Your task to perform on an android device: Search for Italian restaurants on Maps Image 0: 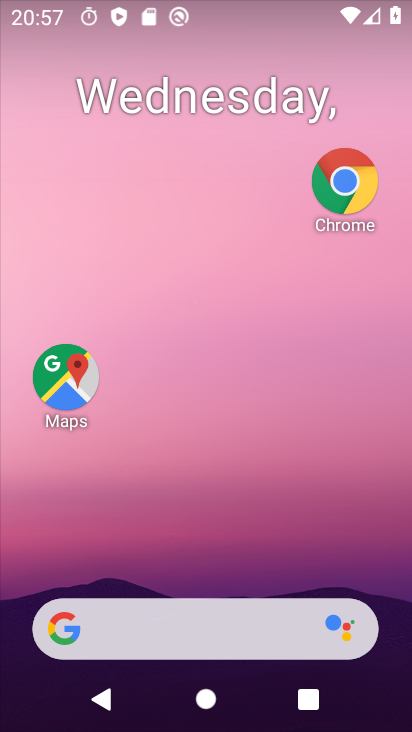
Step 0: drag from (246, 671) to (201, 255)
Your task to perform on an android device: Search for Italian restaurants on Maps Image 1: 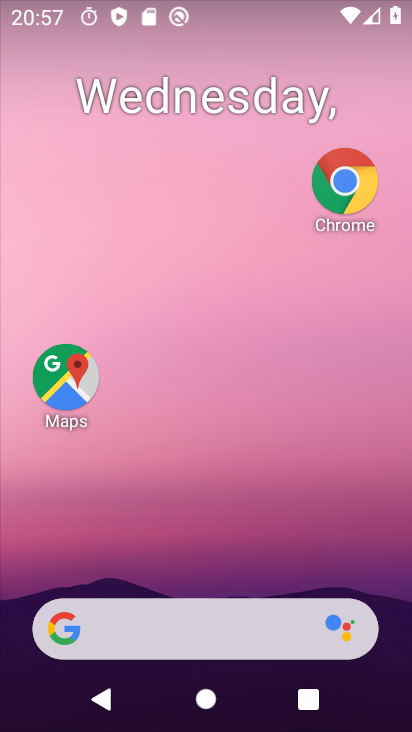
Step 1: drag from (177, 666) to (359, 134)
Your task to perform on an android device: Search for Italian restaurants on Maps Image 2: 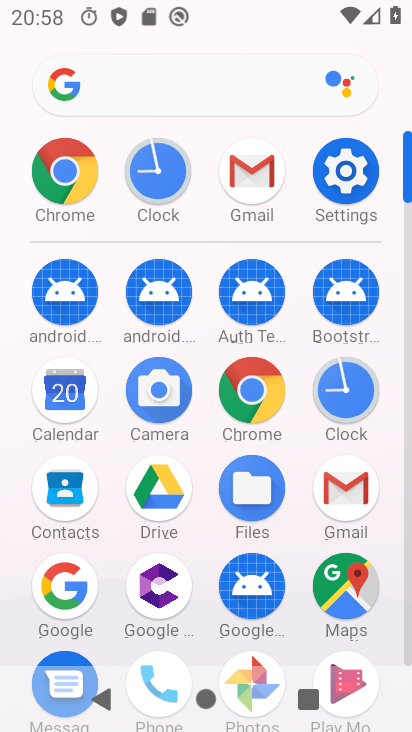
Step 2: click (346, 589)
Your task to perform on an android device: Search for Italian restaurants on Maps Image 3: 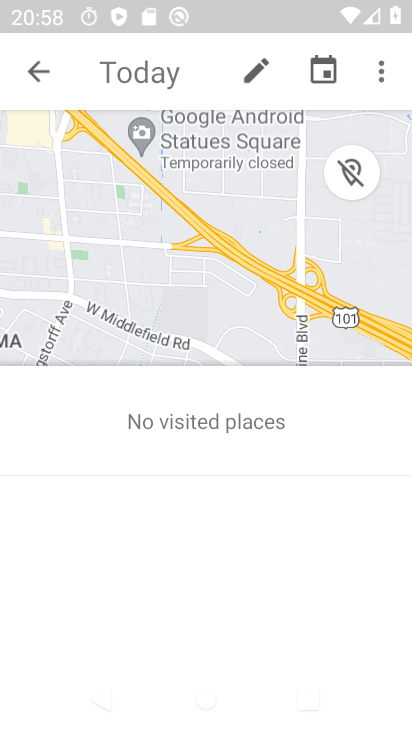
Step 3: click (35, 74)
Your task to perform on an android device: Search for Italian restaurants on Maps Image 4: 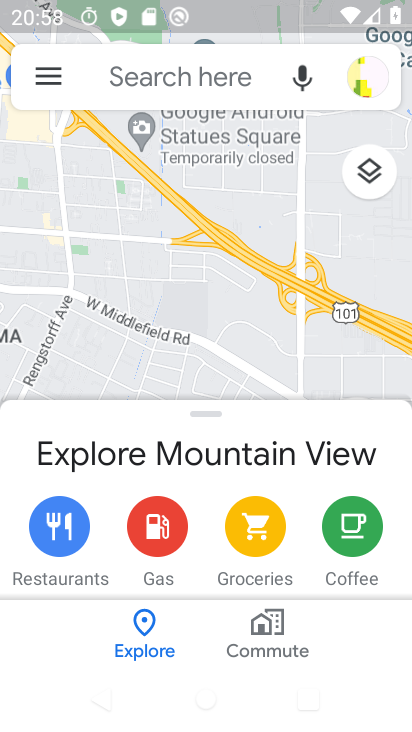
Step 4: click (142, 72)
Your task to perform on an android device: Search for Italian restaurants on Maps Image 5: 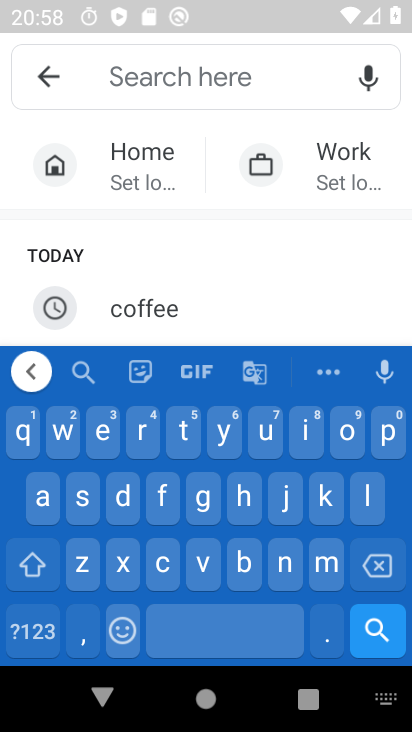
Step 5: click (301, 438)
Your task to perform on an android device: Search for Italian restaurants on Maps Image 6: 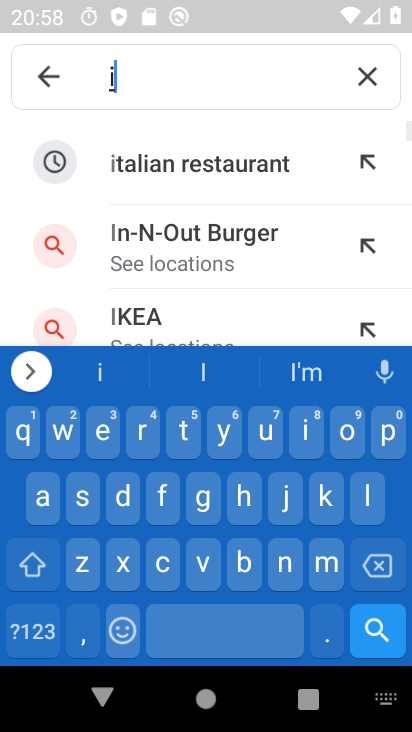
Step 6: click (222, 177)
Your task to perform on an android device: Search for Italian restaurants on Maps Image 7: 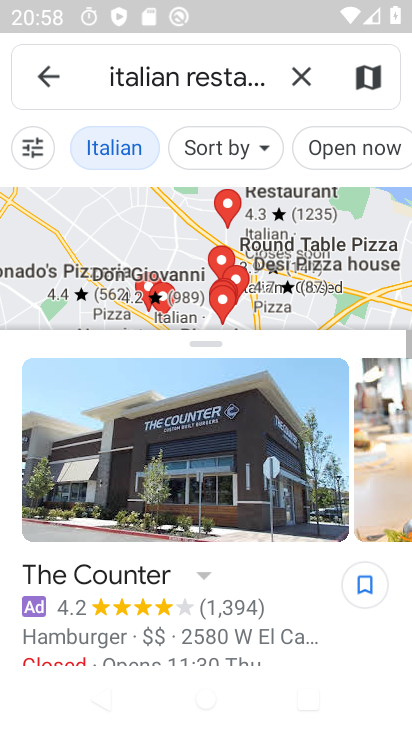
Step 7: task complete